Your task to perform on an android device: open app "AliExpress" (install if not already installed) Image 0: 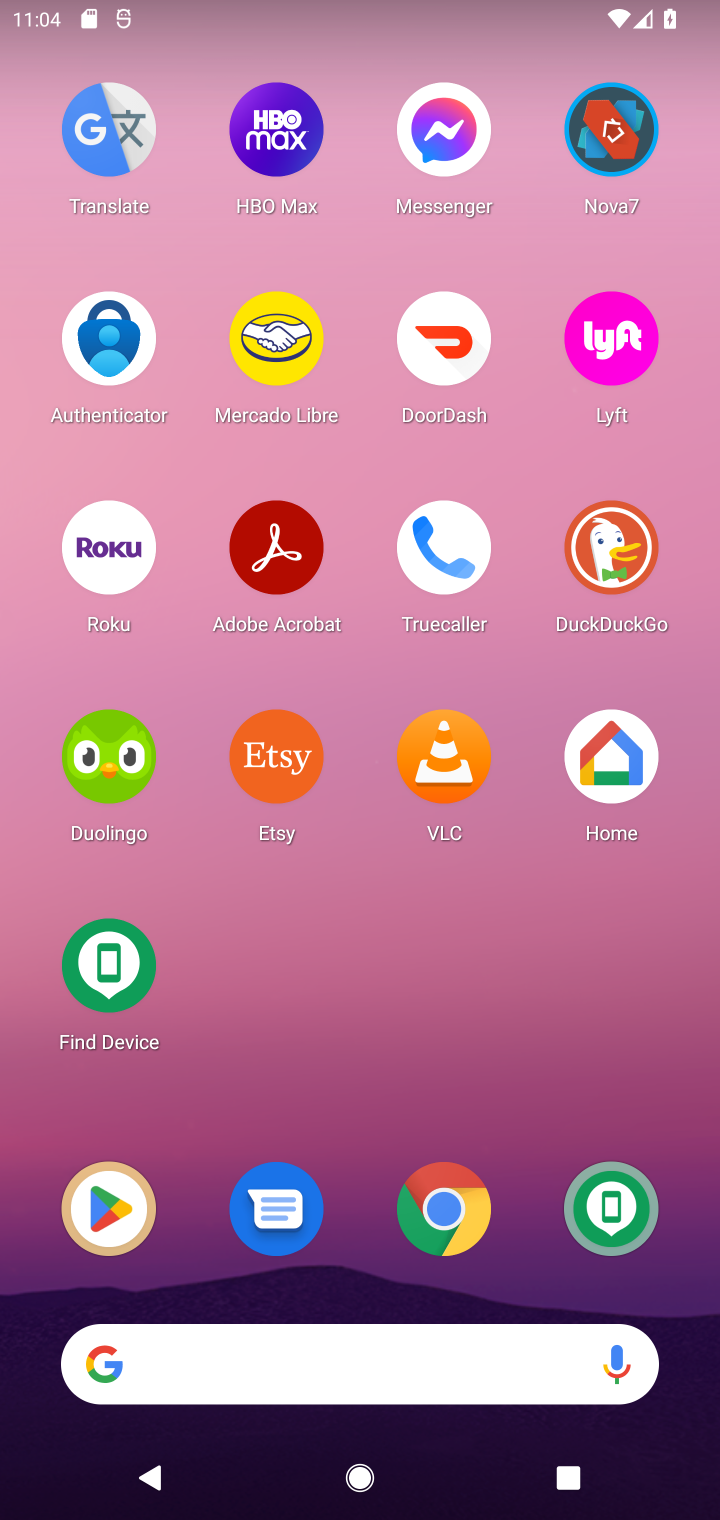
Step 0: drag from (494, 407) to (486, 0)
Your task to perform on an android device: open app "AliExpress" (install if not already installed) Image 1: 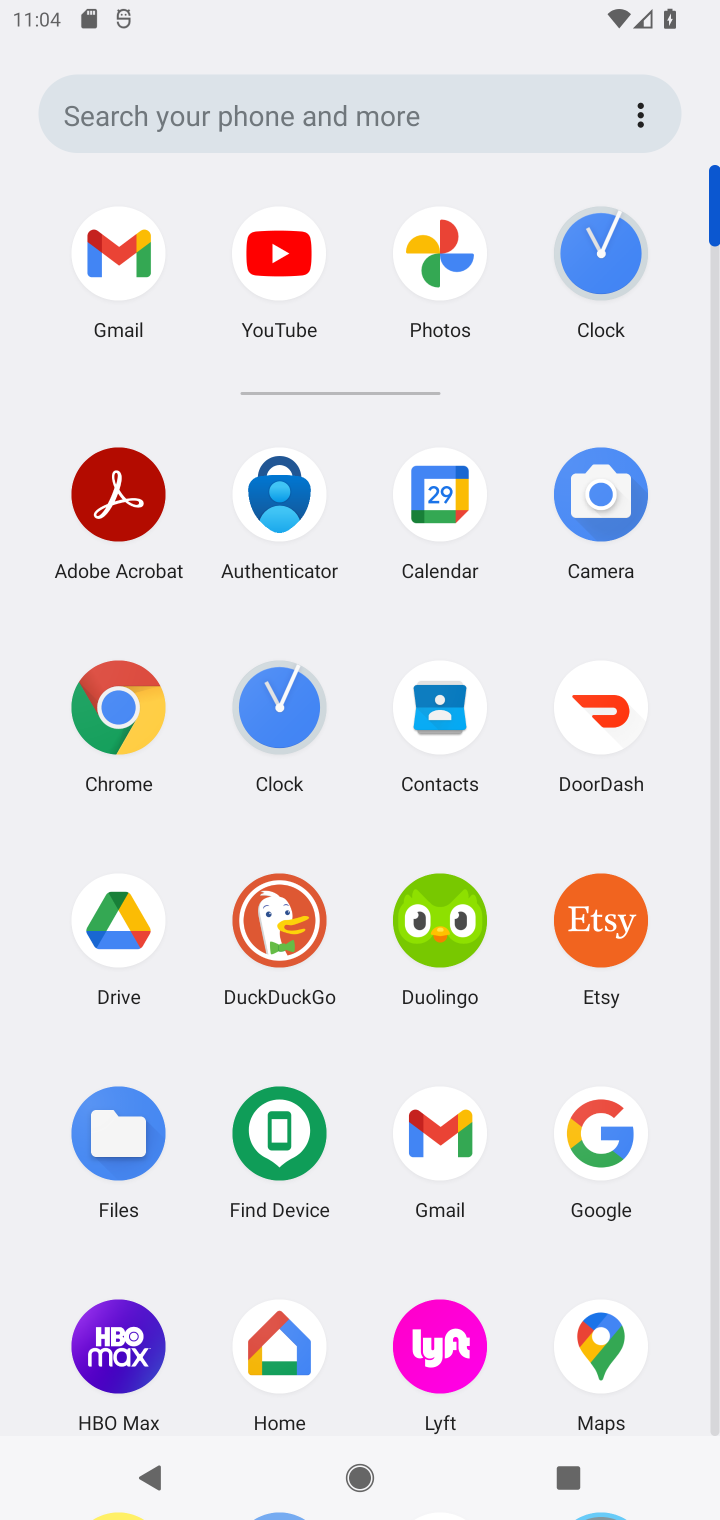
Step 1: drag from (517, 1254) to (521, 626)
Your task to perform on an android device: open app "AliExpress" (install if not already installed) Image 2: 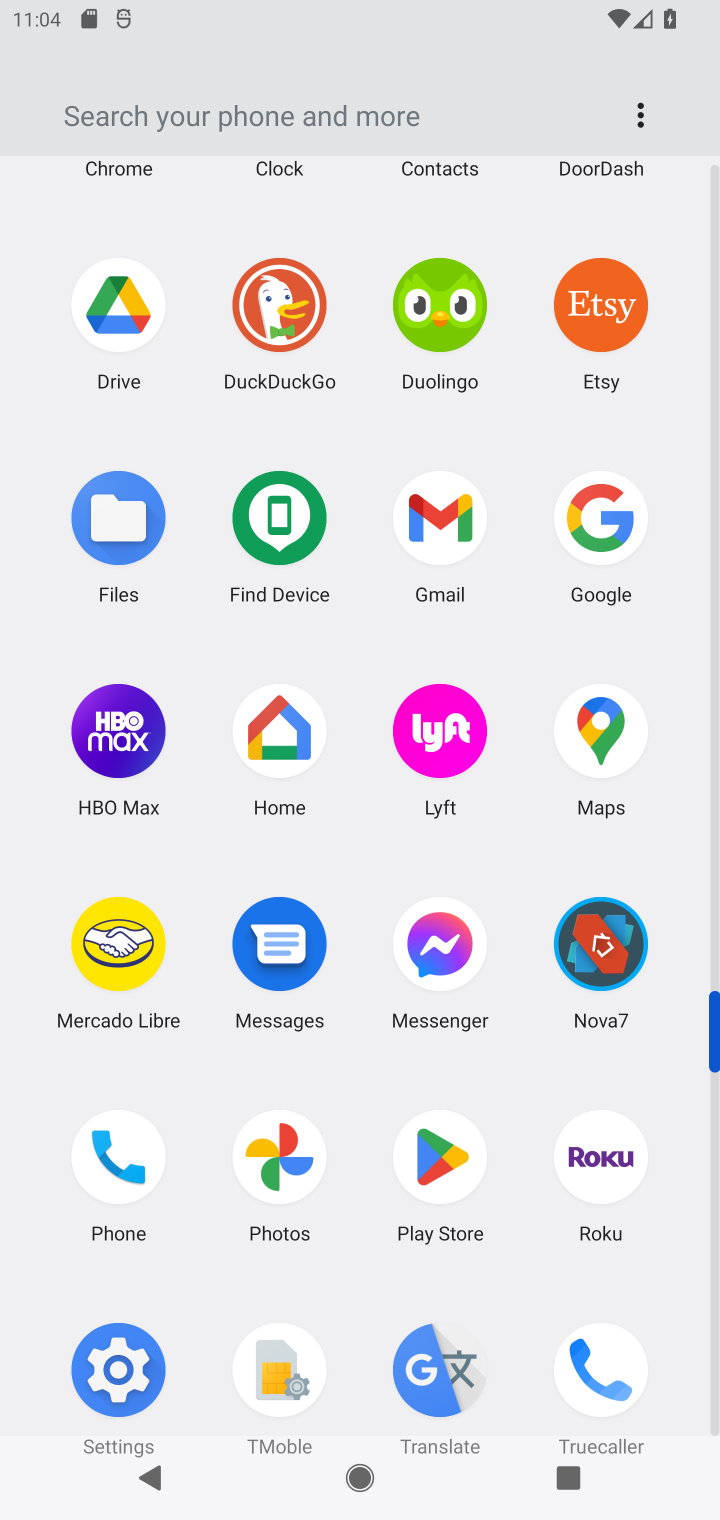
Step 2: click (435, 1170)
Your task to perform on an android device: open app "AliExpress" (install if not already installed) Image 3: 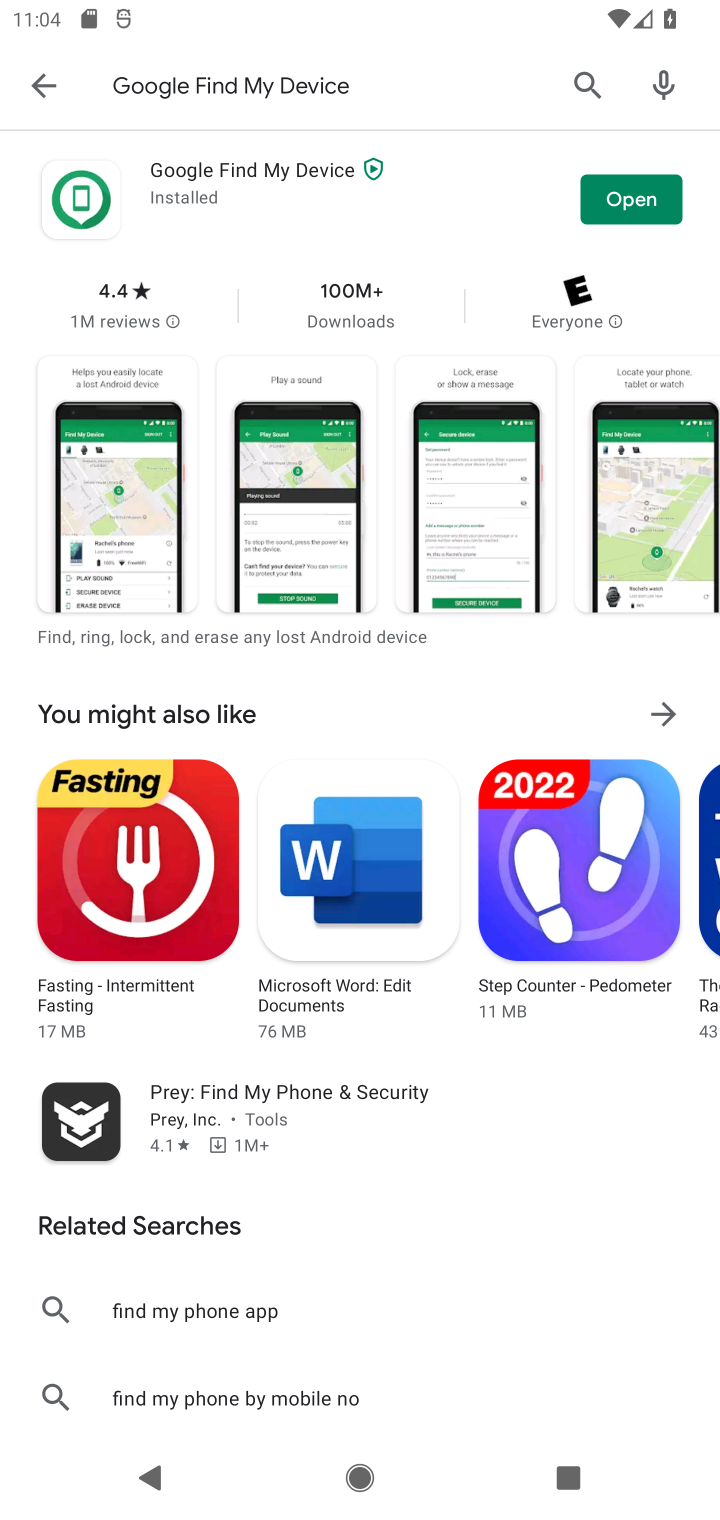
Step 3: click (454, 61)
Your task to perform on an android device: open app "AliExpress" (install if not already installed) Image 4: 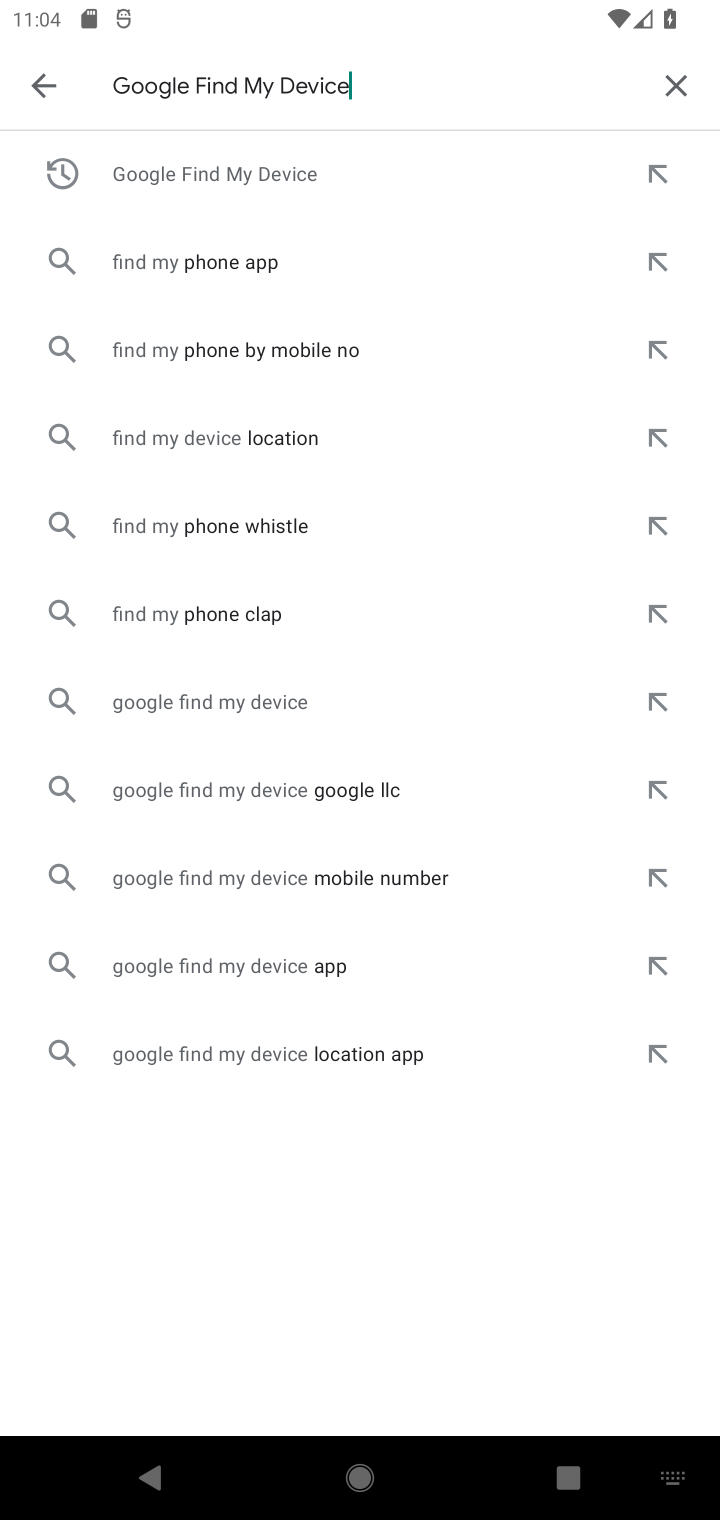
Step 4: click (677, 71)
Your task to perform on an android device: open app "AliExpress" (install if not already installed) Image 5: 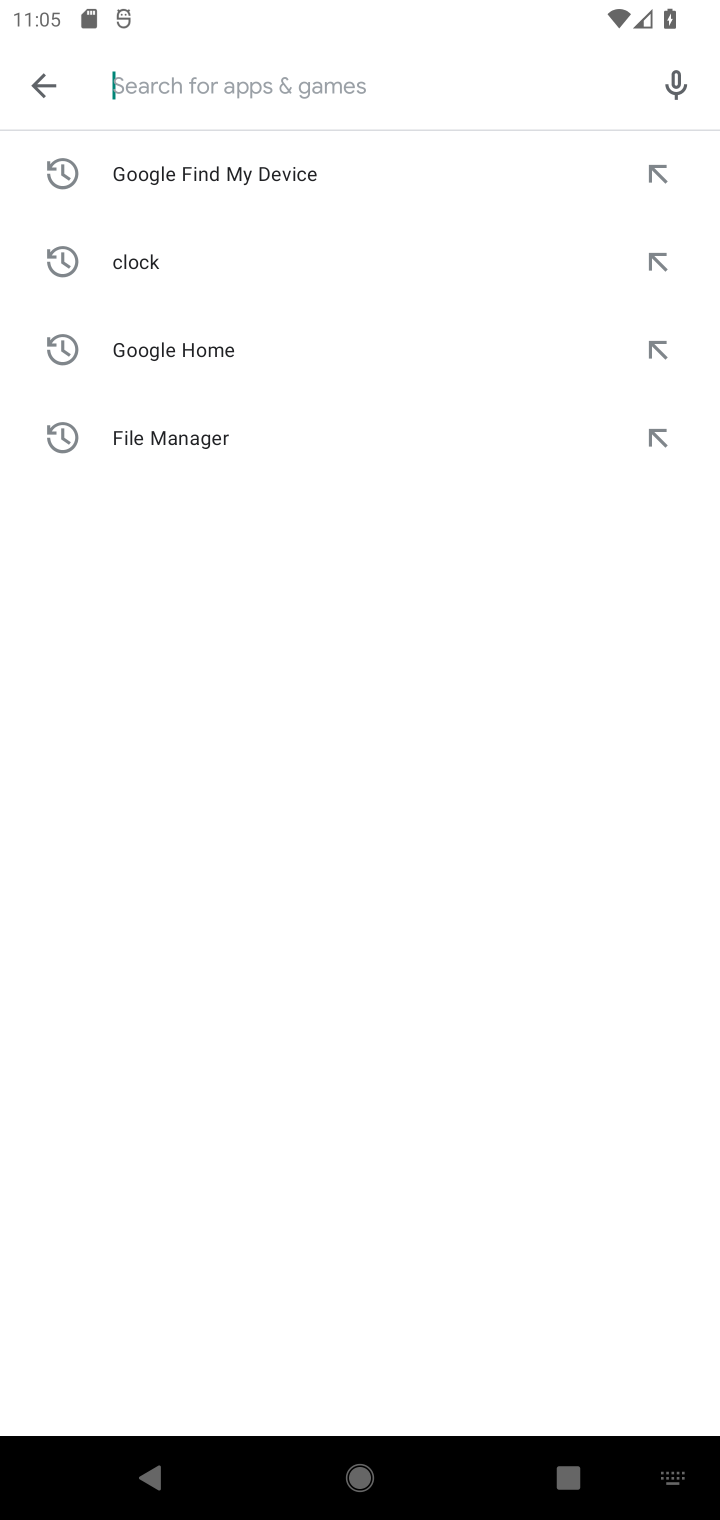
Step 5: type "AliExpress"
Your task to perform on an android device: open app "AliExpress" (install if not already installed) Image 6: 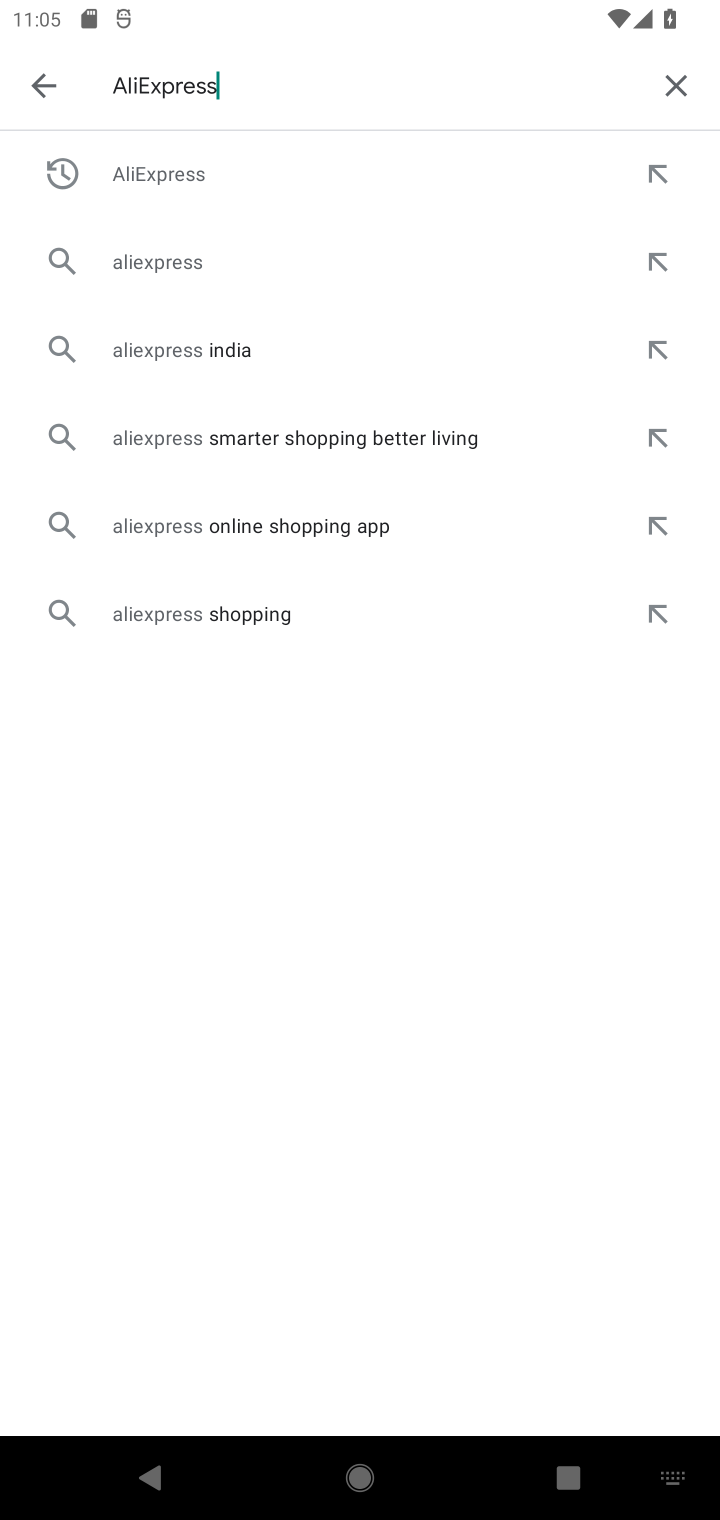
Step 6: press enter
Your task to perform on an android device: open app "AliExpress" (install if not already installed) Image 7: 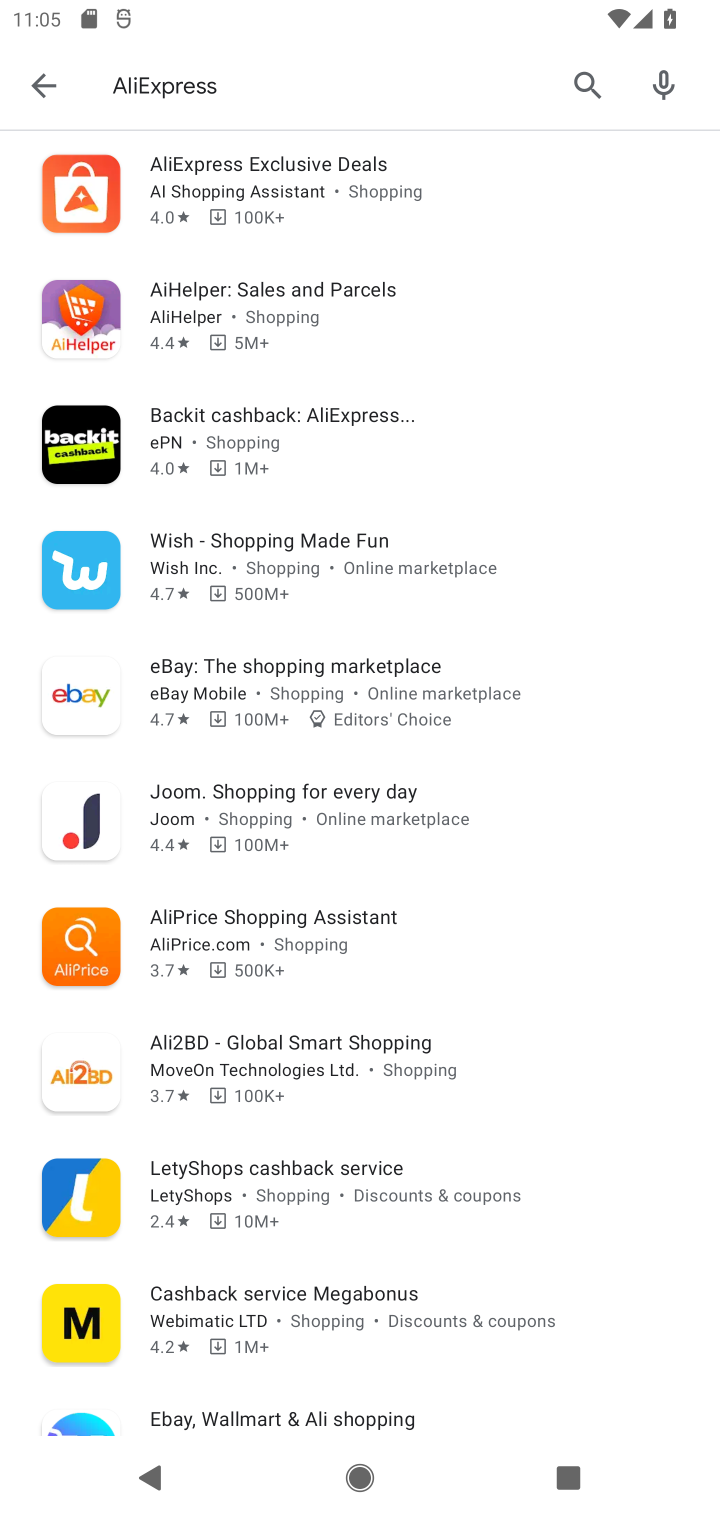
Step 7: task complete